Your task to perform on an android device: change alarm snooze length Image 0: 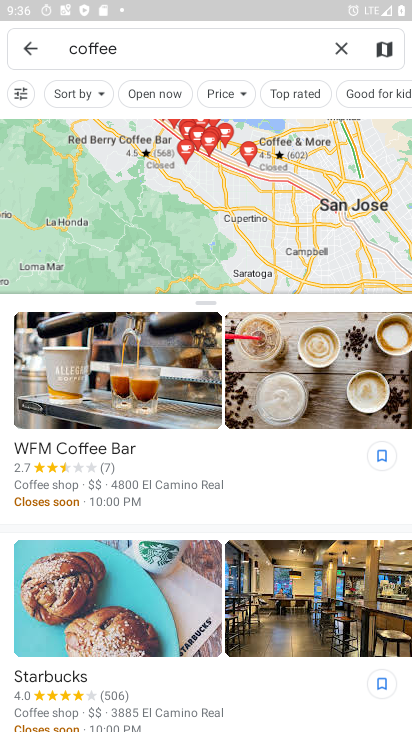
Step 0: press home button
Your task to perform on an android device: change alarm snooze length Image 1: 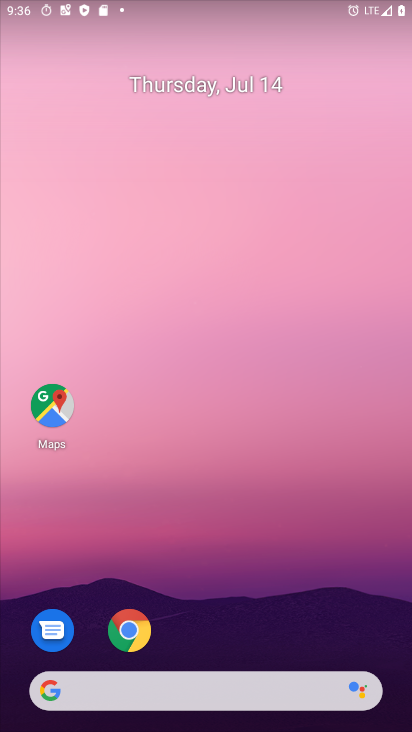
Step 1: drag from (222, 687) to (221, 301)
Your task to perform on an android device: change alarm snooze length Image 2: 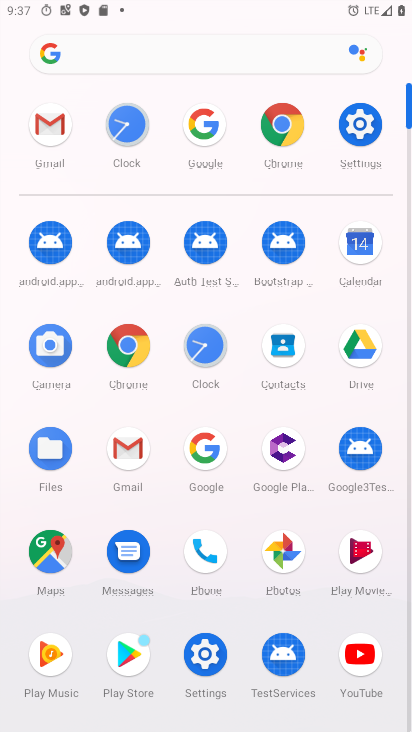
Step 2: click (201, 352)
Your task to perform on an android device: change alarm snooze length Image 3: 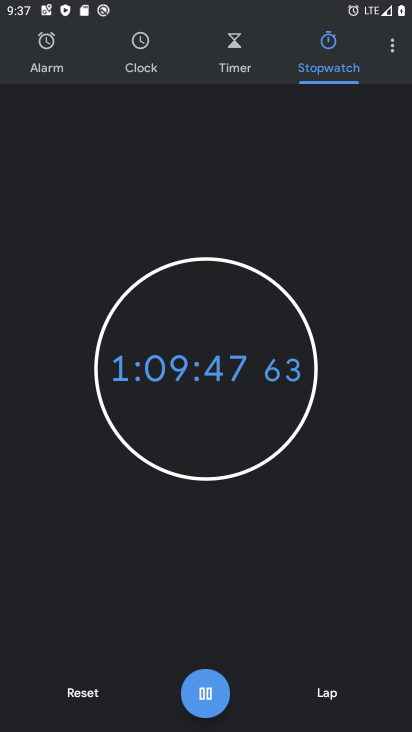
Step 3: click (389, 50)
Your task to perform on an android device: change alarm snooze length Image 4: 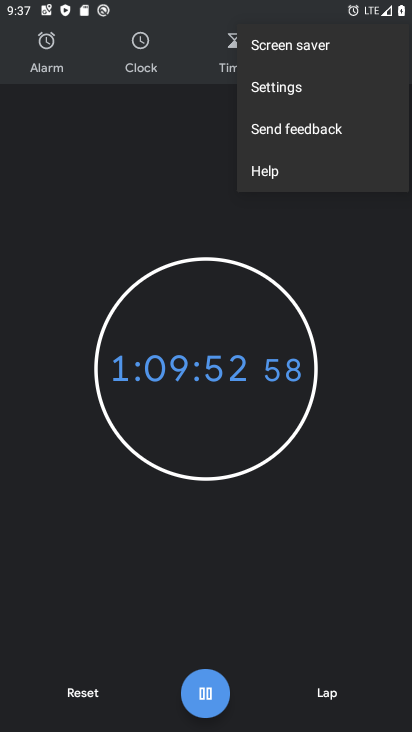
Step 4: click (279, 83)
Your task to perform on an android device: change alarm snooze length Image 5: 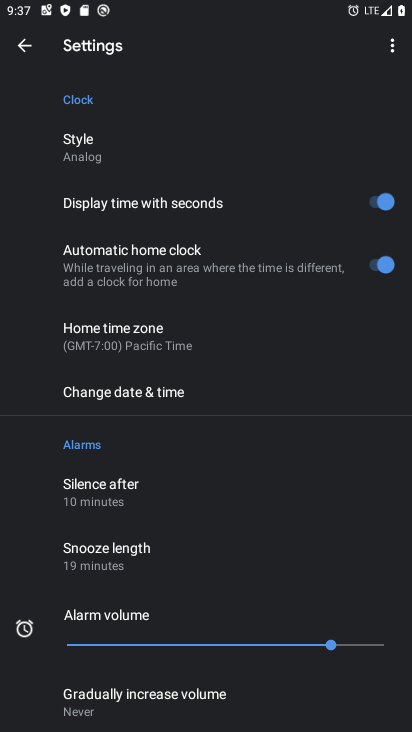
Step 5: click (105, 546)
Your task to perform on an android device: change alarm snooze length Image 6: 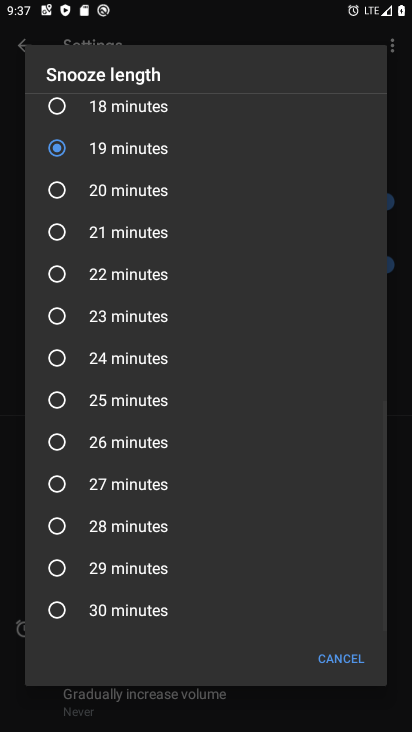
Step 6: click (57, 484)
Your task to perform on an android device: change alarm snooze length Image 7: 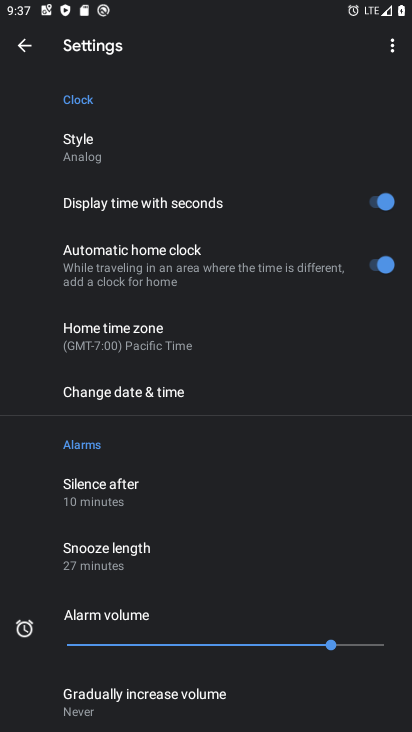
Step 7: task complete